Your task to perform on an android device: set default search engine in the chrome app Image 0: 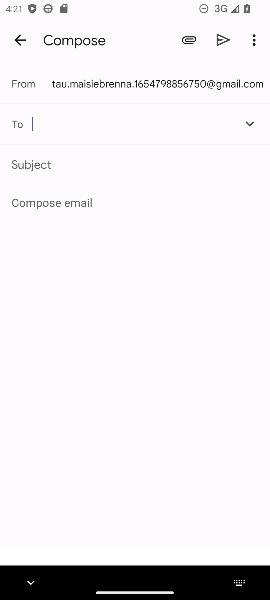
Step 0: press home button
Your task to perform on an android device: set default search engine in the chrome app Image 1: 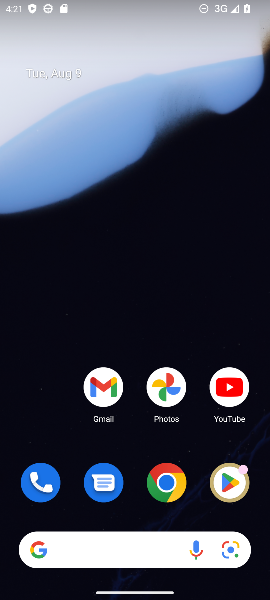
Step 1: click (163, 479)
Your task to perform on an android device: set default search engine in the chrome app Image 2: 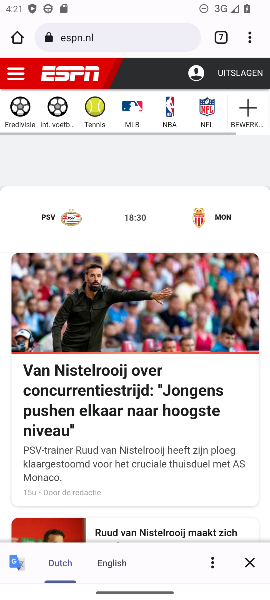
Step 2: click (250, 38)
Your task to perform on an android device: set default search engine in the chrome app Image 3: 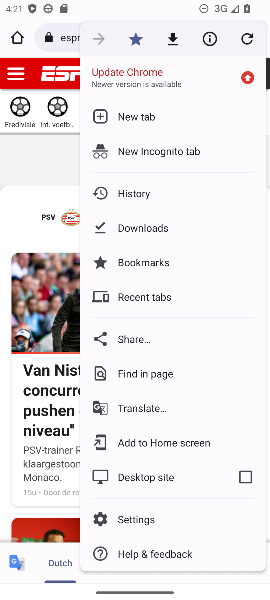
Step 3: click (149, 521)
Your task to perform on an android device: set default search engine in the chrome app Image 4: 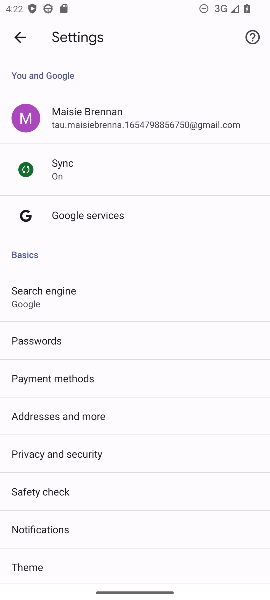
Step 4: click (91, 288)
Your task to perform on an android device: set default search engine in the chrome app Image 5: 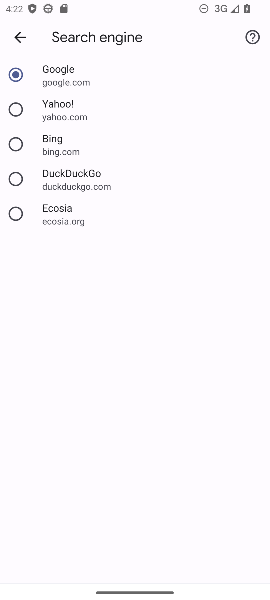
Step 5: task complete